Your task to perform on an android device: stop showing notifications on the lock screen Image 0: 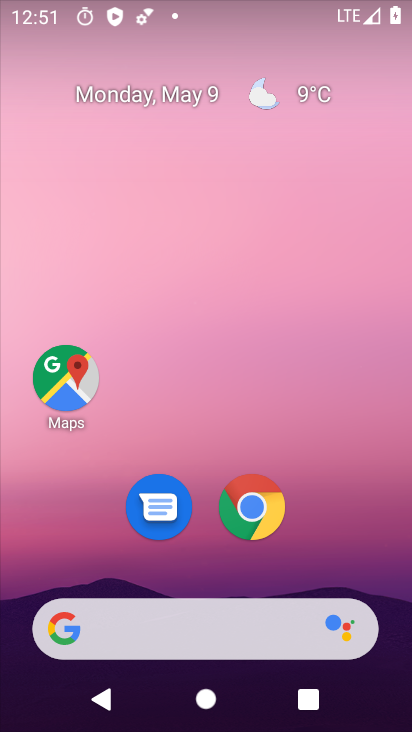
Step 0: drag from (224, 726) to (218, 103)
Your task to perform on an android device: stop showing notifications on the lock screen Image 1: 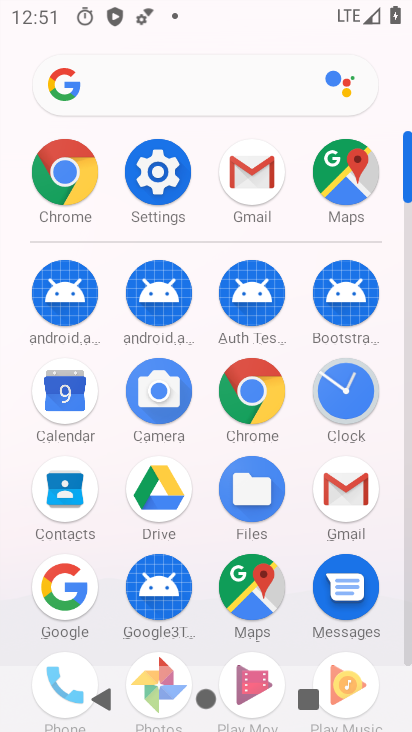
Step 1: click (165, 165)
Your task to perform on an android device: stop showing notifications on the lock screen Image 2: 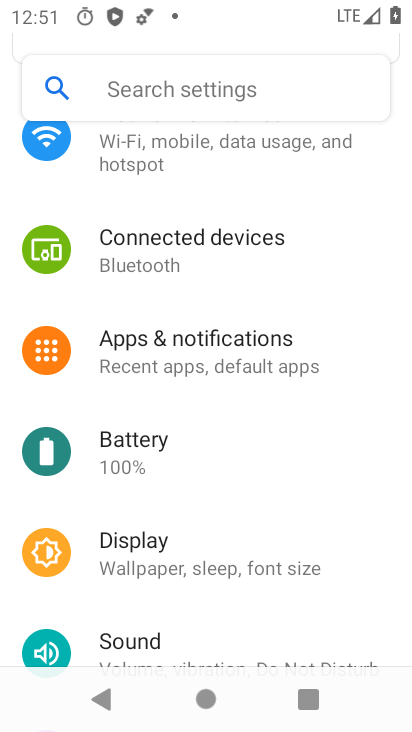
Step 2: click (158, 347)
Your task to perform on an android device: stop showing notifications on the lock screen Image 3: 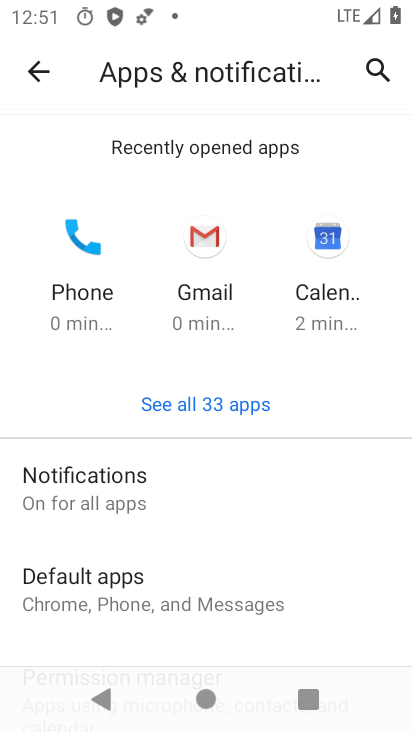
Step 3: click (72, 494)
Your task to perform on an android device: stop showing notifications on the lock screen Image 4: 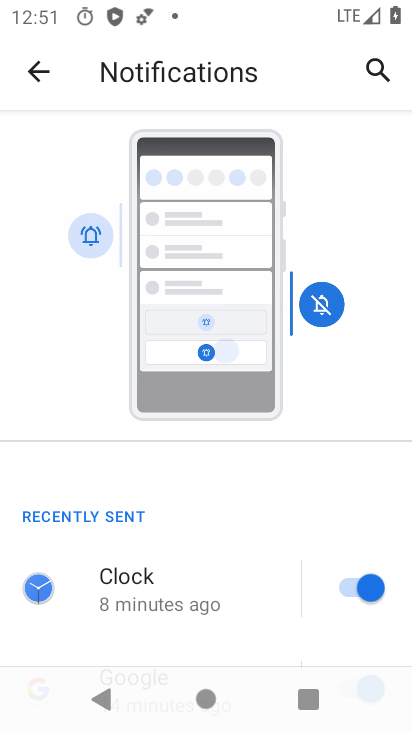
Step 4: drag from (268, 646) to (215, 296)
Your task to perform on an android device: stop showing notifications on the lock screen Image 5: 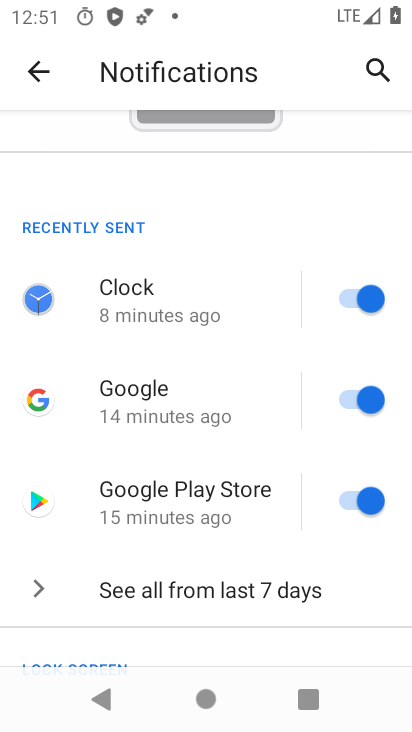
Step 5: drag from (237, 654) to (242, 151)
Your task to perform on an android device: stop showing notifications on the lock screen Image 6: 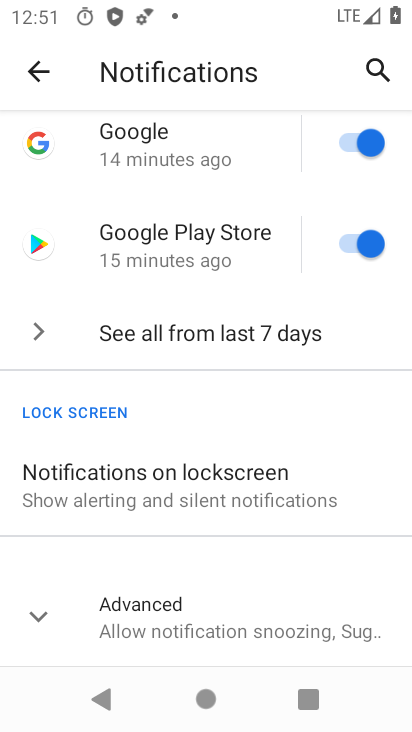
Step 6: click (193, 468)
Your task to perform on an android device: stop showing notifications on the lock screen Image 7: 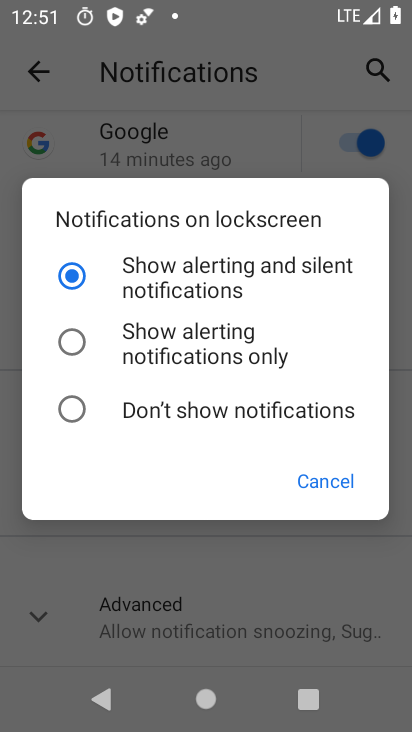
Step 7: click (61, 406)
Your task to perform on an android device: stop showing notifications on the lock screen Image 8: 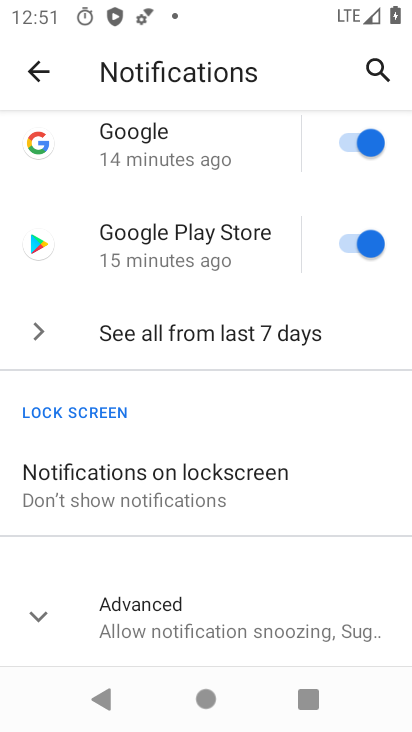
Step 8: task complete